Your task to perform on an android device: Search for a custom made wallet Image 0: 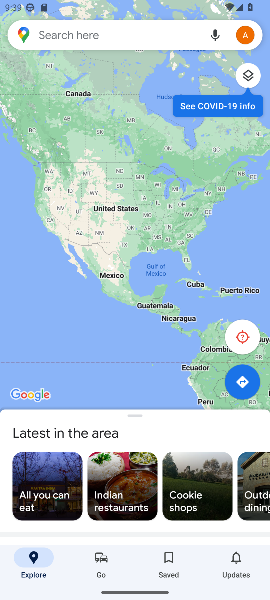
Step 0: press home button
Your task to perform on an android device: Search for a custom made wallet Image 1: 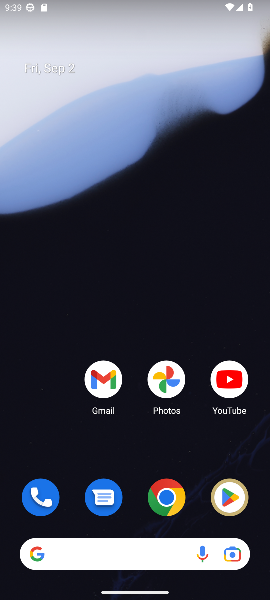
Step 1: click (131, 227)
Your task to perform on an android device: Search for a custom made wallet Image 2: 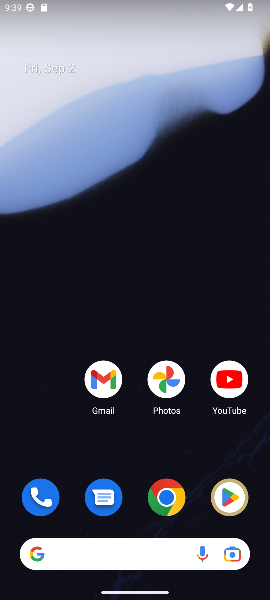
Step 2: drag from (130, 479) to (176, 157)
Your task to perform on an android device: Search for a custom made wallet Image 3: 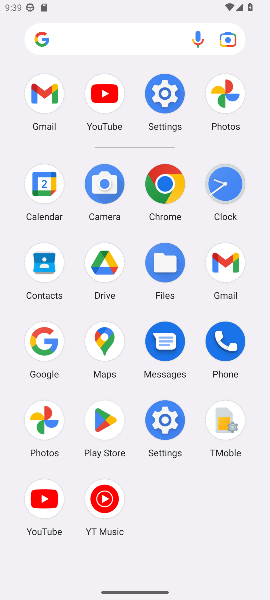
Step 3: click (48, 345)
Your task to perform on an android device: Search for a custom made wallet Image 4: 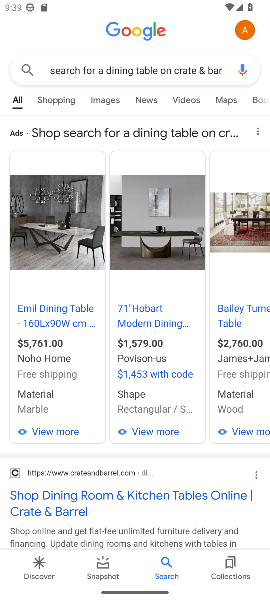
Step 4: click (148, 68)
Your task to perform on an android device: Search for a custom made wallet Image 5: 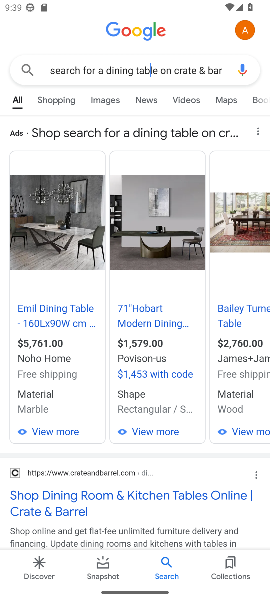
Step 5: click (148, 68)
Your task to perform on an android device: Search for a custom made wallet Image 6: 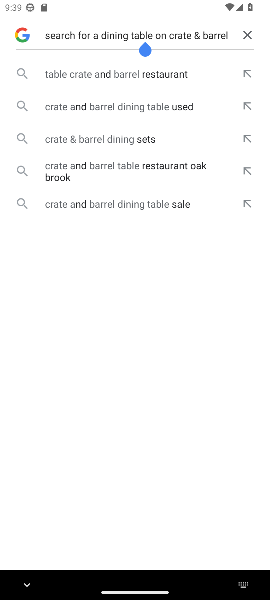
Step 6: click (246, 31)
Your task to perform on an android device: Search for a custom made wallet Image 7: 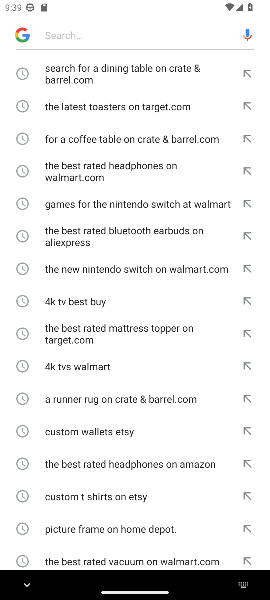
Step 7: type "for a custom made wallet"
Your task to perform on an android device: Search for a custom made wallet Image 8: 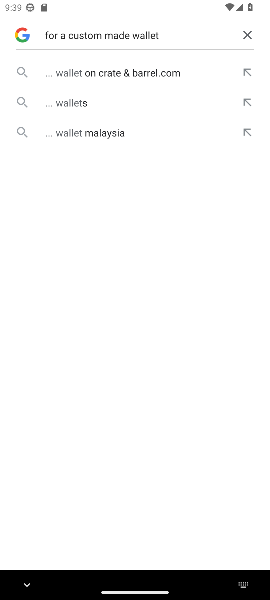
Step 8: click (70, 103)
Your task to perform on an android device: Search for a custom made wallet Image 9: 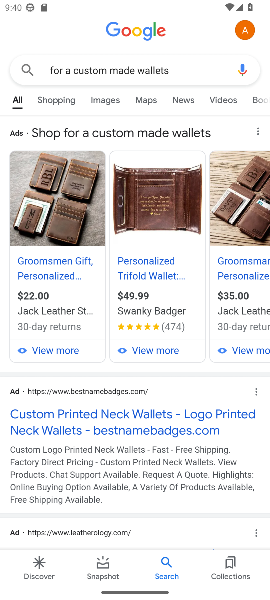
Step 9: task complete